Your task to perform on an android device: Open Chrome and go to settings Image 0: 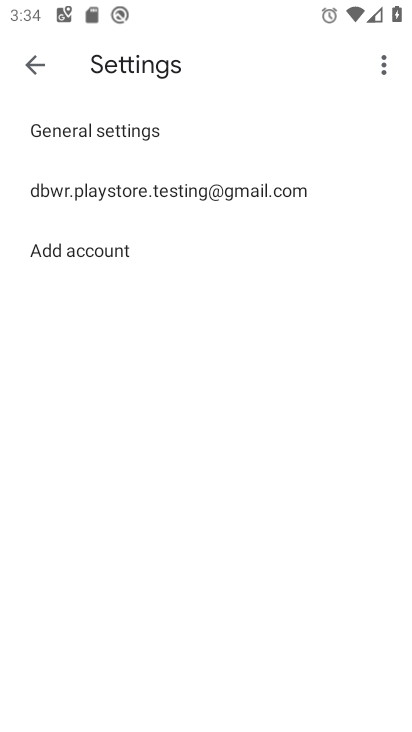
Step 0: press home button
Your task to perform on an android device: Open Chrome and go to settings Image 1: 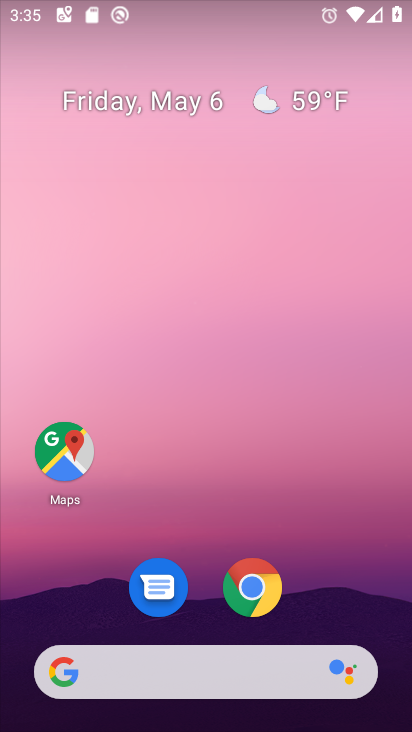
Step 1: drag from (241, 523) to (239, 36)
Your task to perform on an android device: Open Chrome and go to settings Image 2: 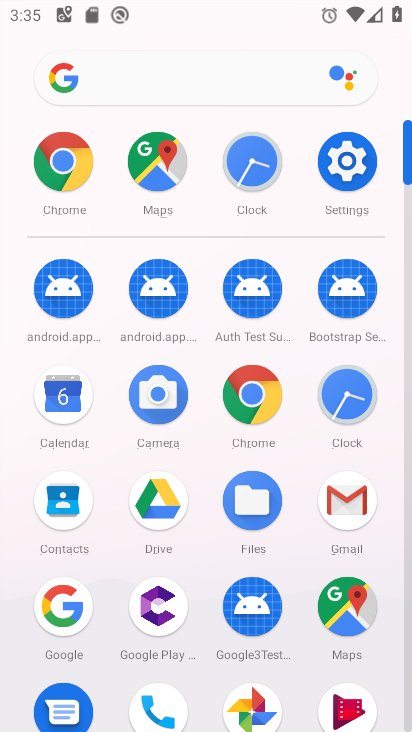
Step 2: click (250, 393)
Your task to perform on an android device: Open Chrome and go to settings Image 3: 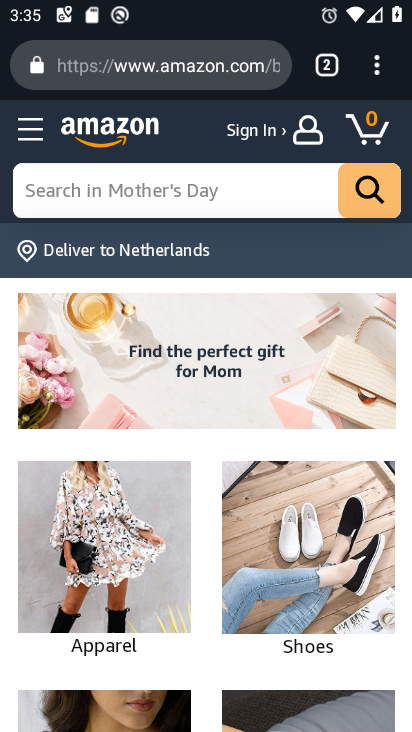
Step 3: task complete